Your task to perform on an android device: Open Google Image 0: 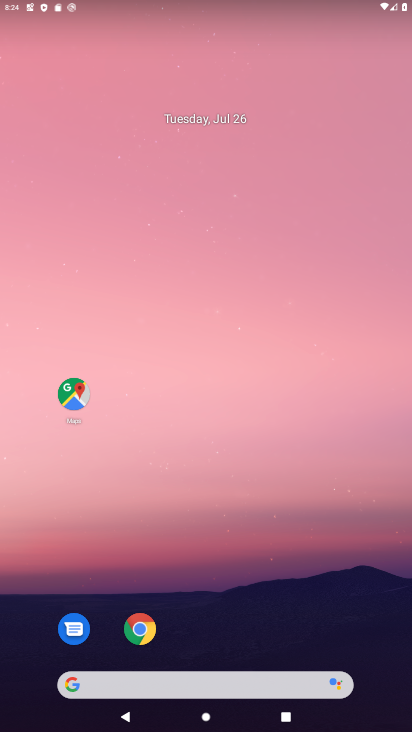
Step 0: drag from (226, 601) to (212, 301)
Your task to perform on an android device: Open Google Image 1: 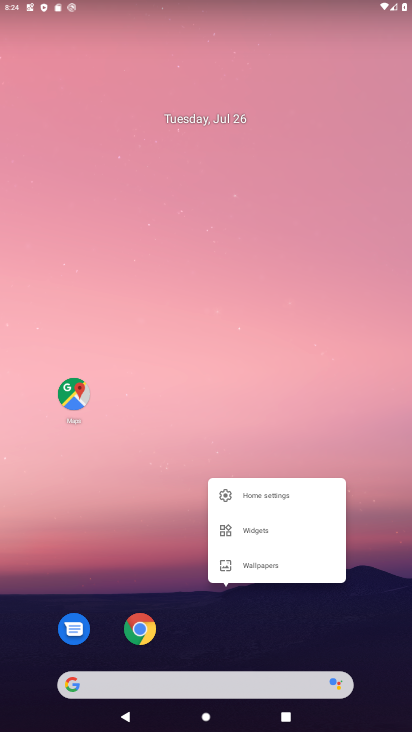
Step 1: click (158, 465)
Your task to perform on an android device: Open Google Image 2: 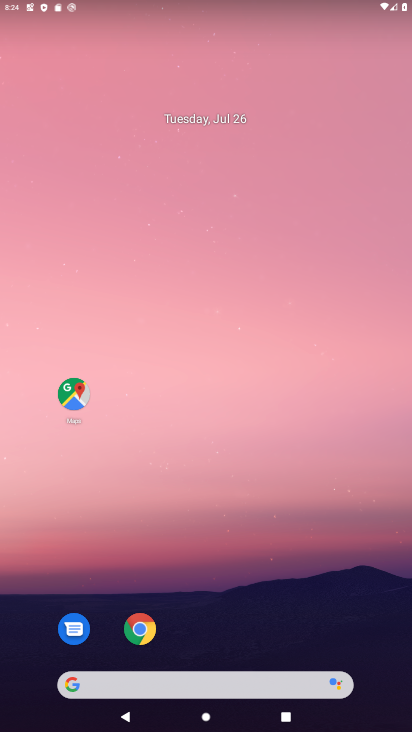
Step 2: drag from (213, 648) to (171, 319)
Your task to perform on an android device: Open Google Image 3: 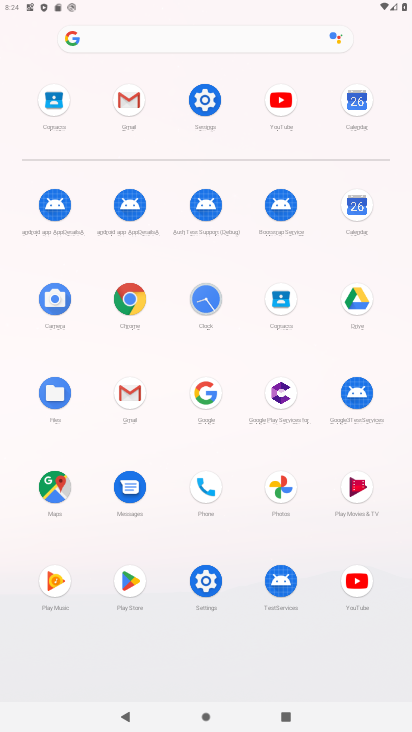
Step 3: click (201, 389)
Your task to perform on an android device: Open Google Image 4: 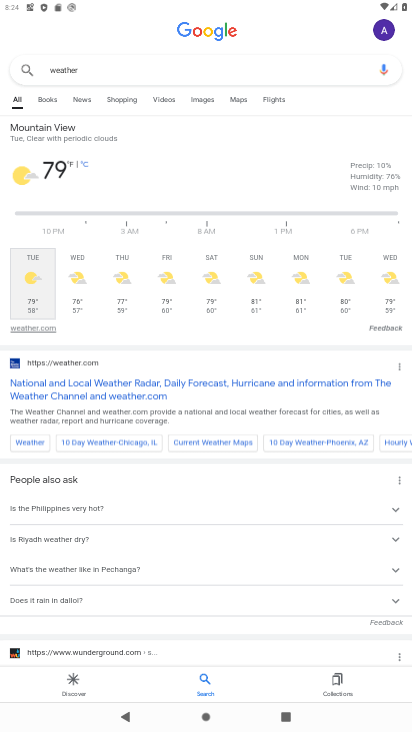
Step 4: click (72, 682)
Your task to perform on an android device: Open Google Image 5: 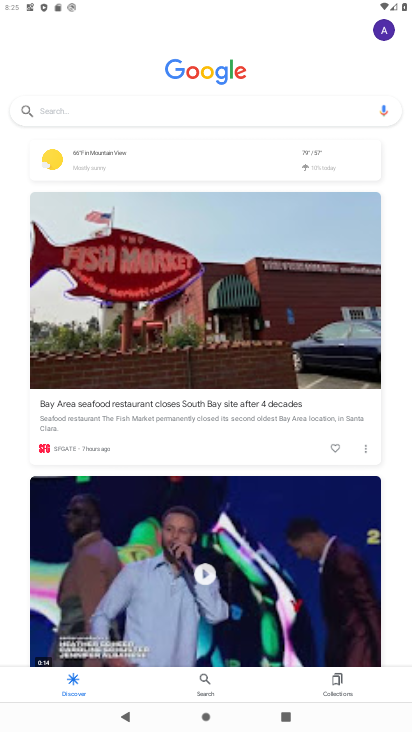
Step 5: task complete